Your task to perform on an android device: add a label to a message in the gmail app Image 0: 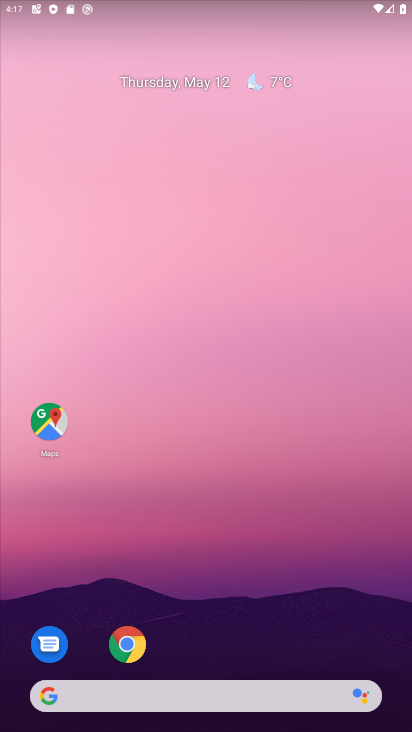
Step 0: press home button
Your task to perform on an android device: add a label to a message in the gmail app Image 1: 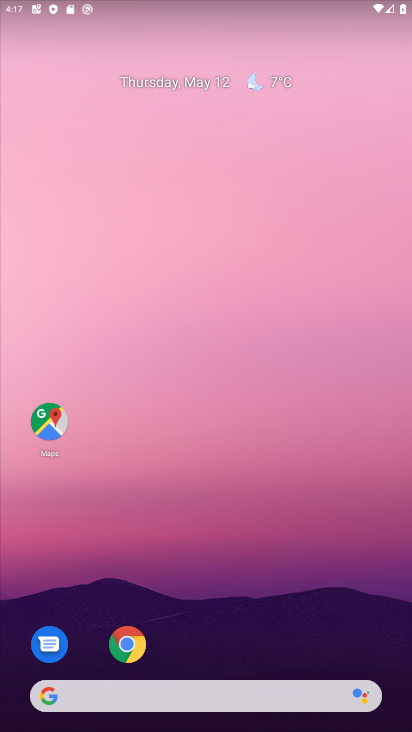
Step 1: drag from (209, 661) to (208, 78)
Your task to perform on an android device: add a label to a message in the gmail app Image 2: 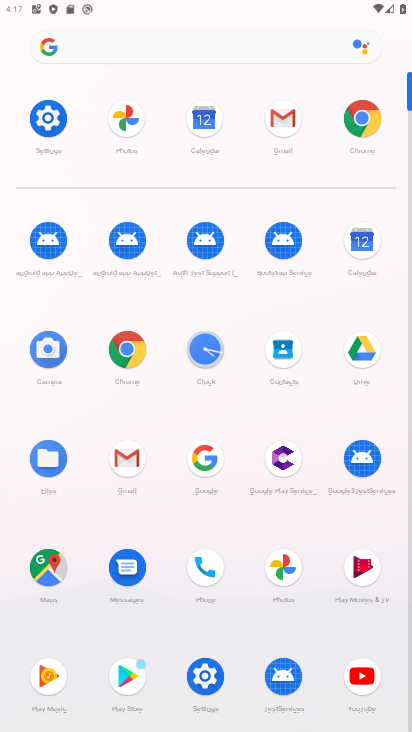
Step 2: click (121, 452)
Your task to perform on an android device: add a label to a message in the gmail app Image 3: 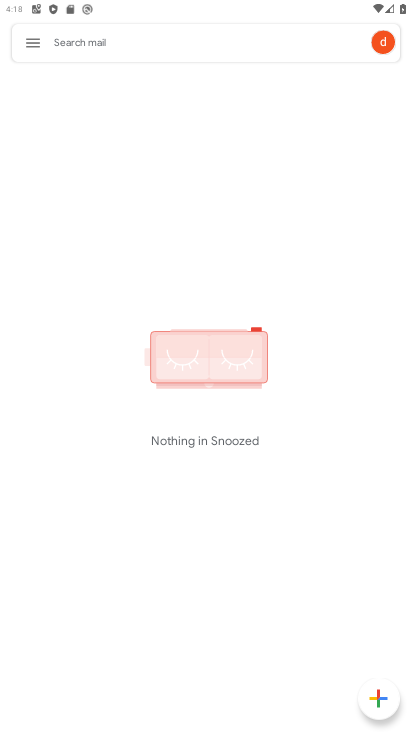
Step 3: task complete